Your task to perform on an android device: move an email to a new category in the gmail app Image 0: 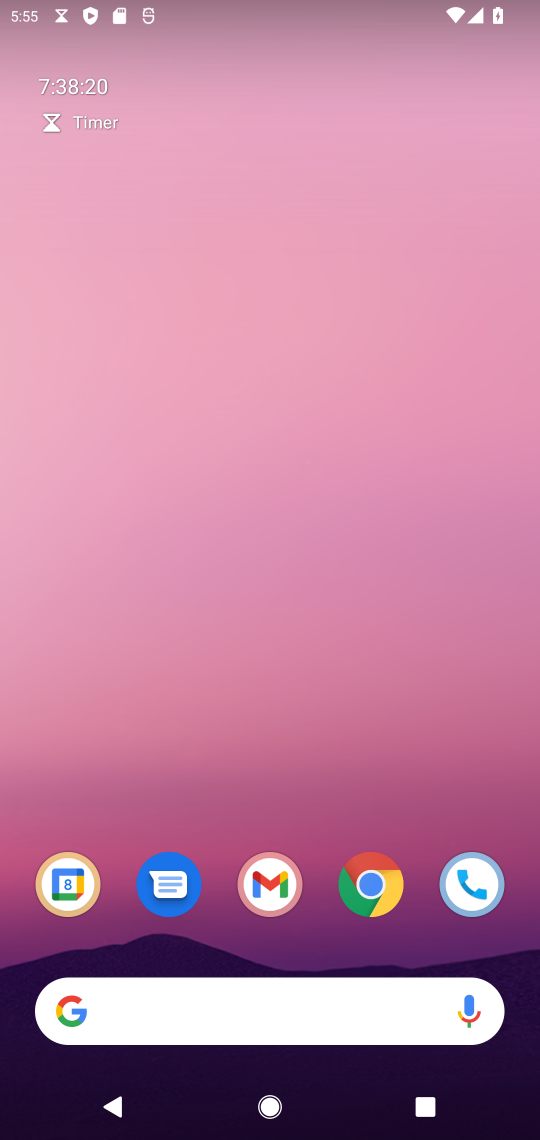
Step 0: drag from (323, 710) to (244, 185)
Your task to perform on an android device: move an email to a new category in the gmail app Image 1: 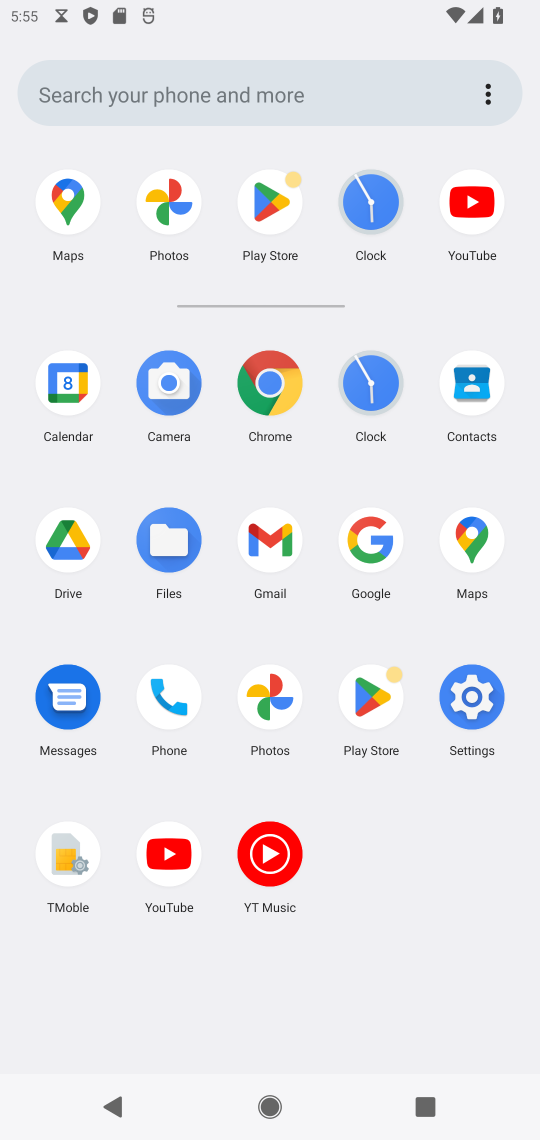
Step 1: click (281, 543)
Your task to perform on an android device: move an email to a new category in the gmail app Image 2: 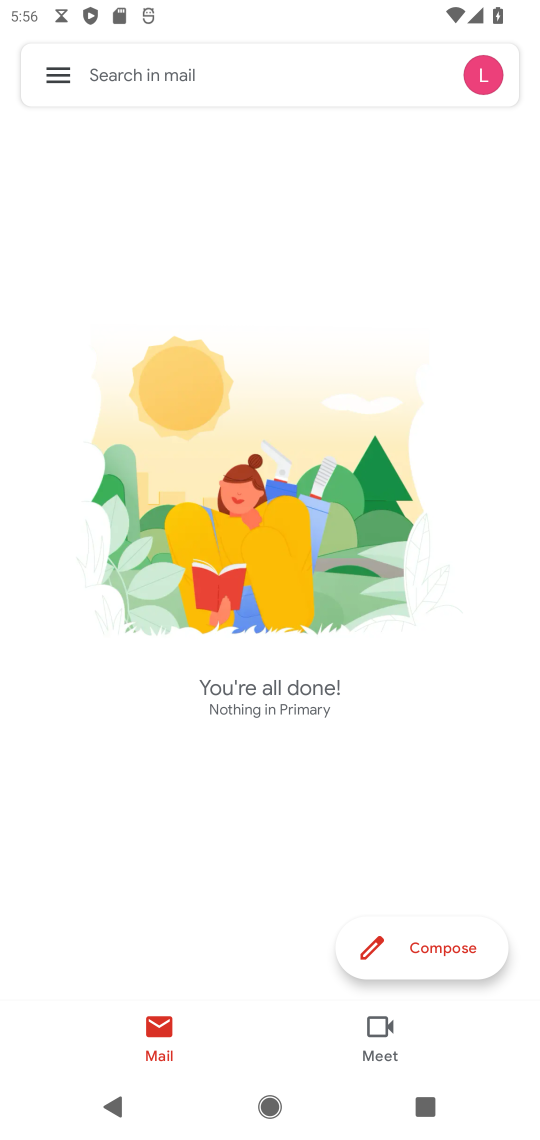
Step 2: task complete